Your task to perform on an android device: Open ESPN.com Image 0: 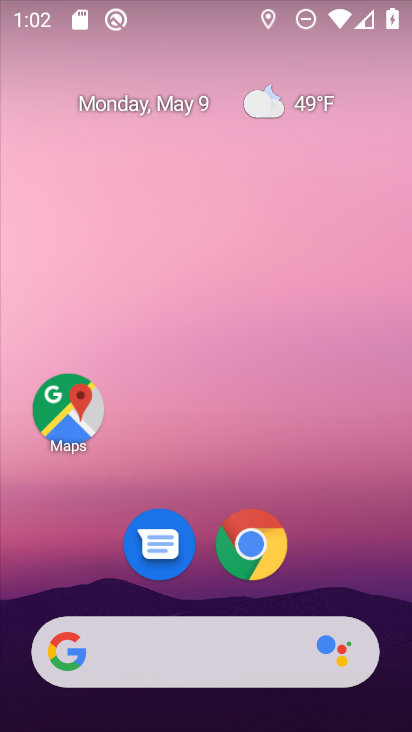
Step 0: click (271, 545)
Your task to perform on an android device: Open ESPN.com Image 1: 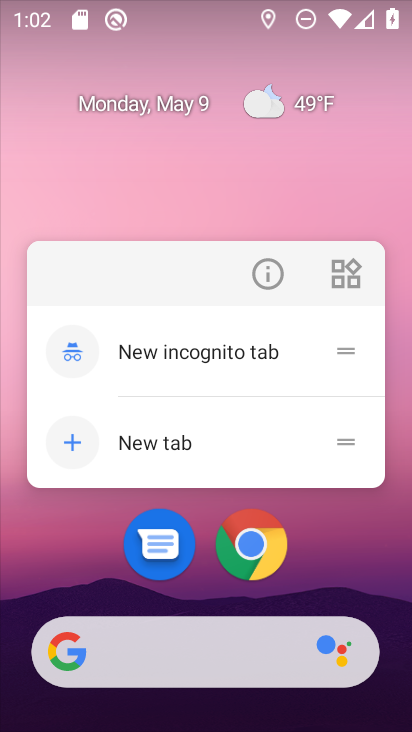
Step 1: click (276, 543)
Your task to perform on an android device: Open ESPN.com Image 2: 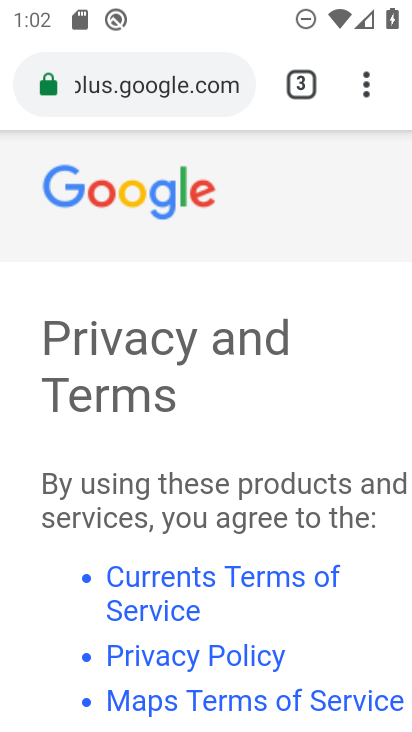
Step 2: click (209, 84)
Your task to perform on an android device: Open ESPN.com Image 3: 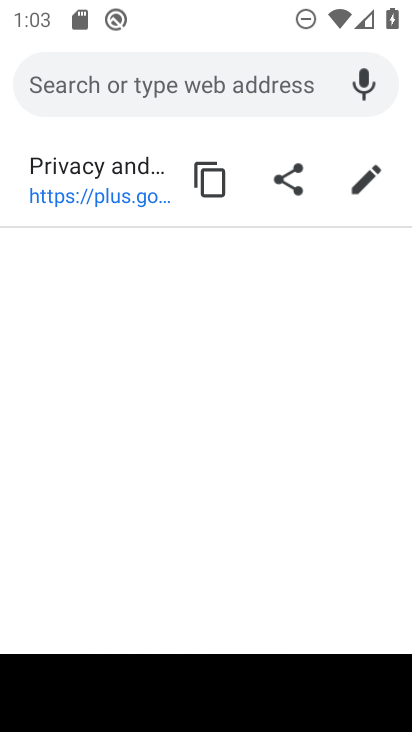
Step 3: click (209, 82)
Your task to perform on an android device: Open ESPN.com Image 4: 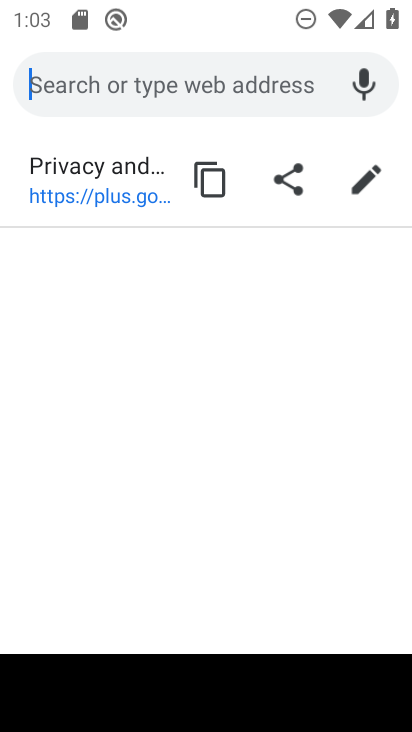
Step 4: type "espn"
Your task to perform on an android device: Open ESPN.com Image 5: 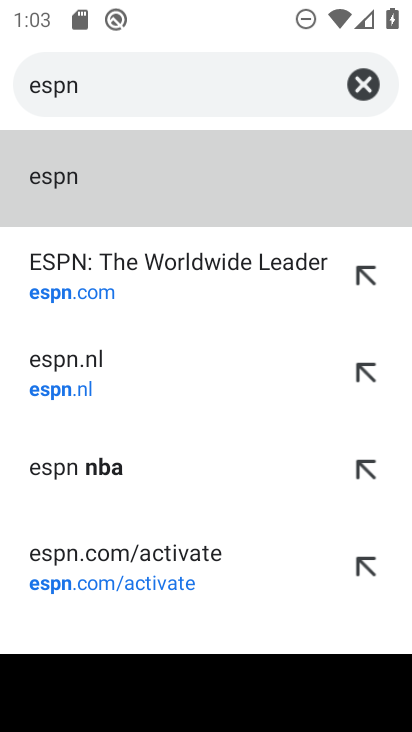
Step 5: click (46, 187)
Your task to perform on an android device: Open ESPN.com Image 6: 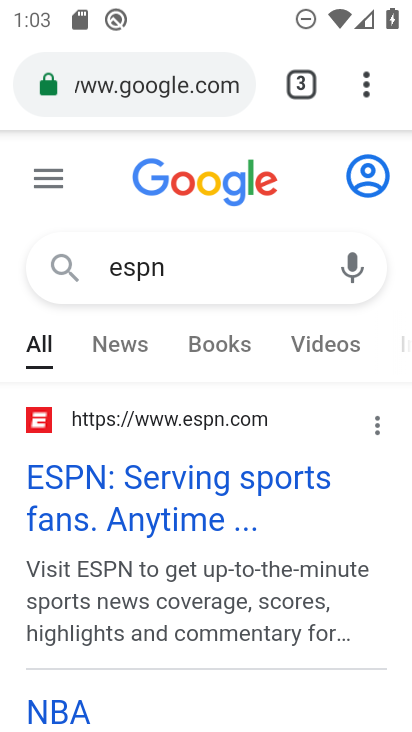
Step 6: click (131, 483)
Your task to perform on an android device: Open ESPN.com Image 7: 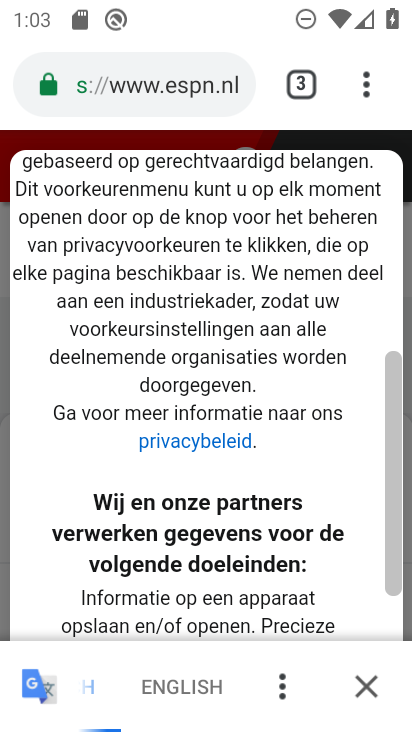
Step 7: task complete